Your task to perform on an android device: Show me popular games on the Play Store Image 0: 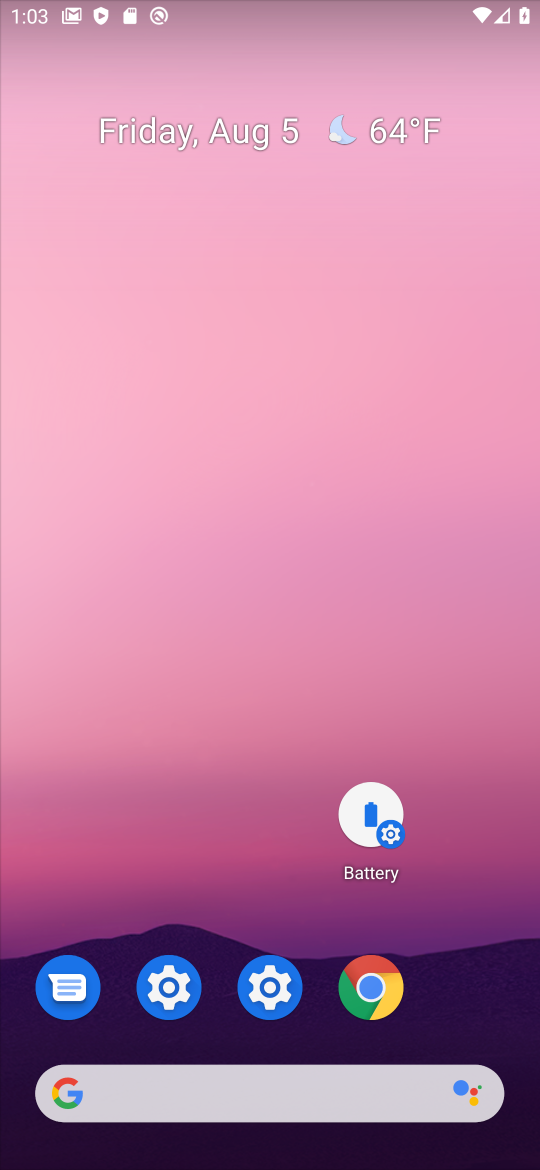
Step 0: press back button
Your task to perform on an android device: Show me popular games on the Play Store Image 1: 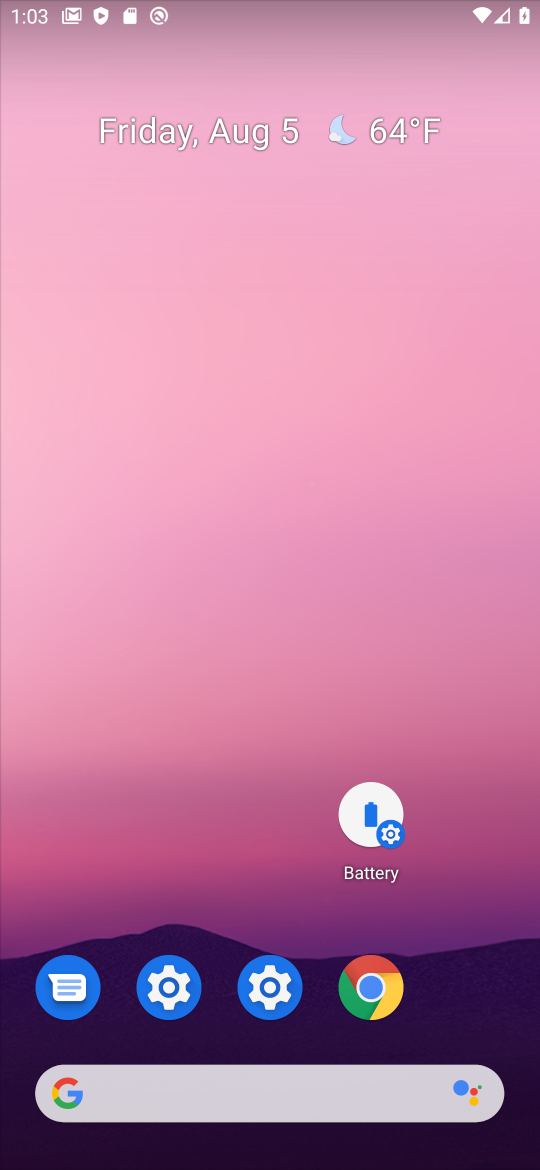
Step 1: drag from (318, 862) to (308, 529)
Your task to perform on an android device: Show me popular games on the Play Store Image 2: 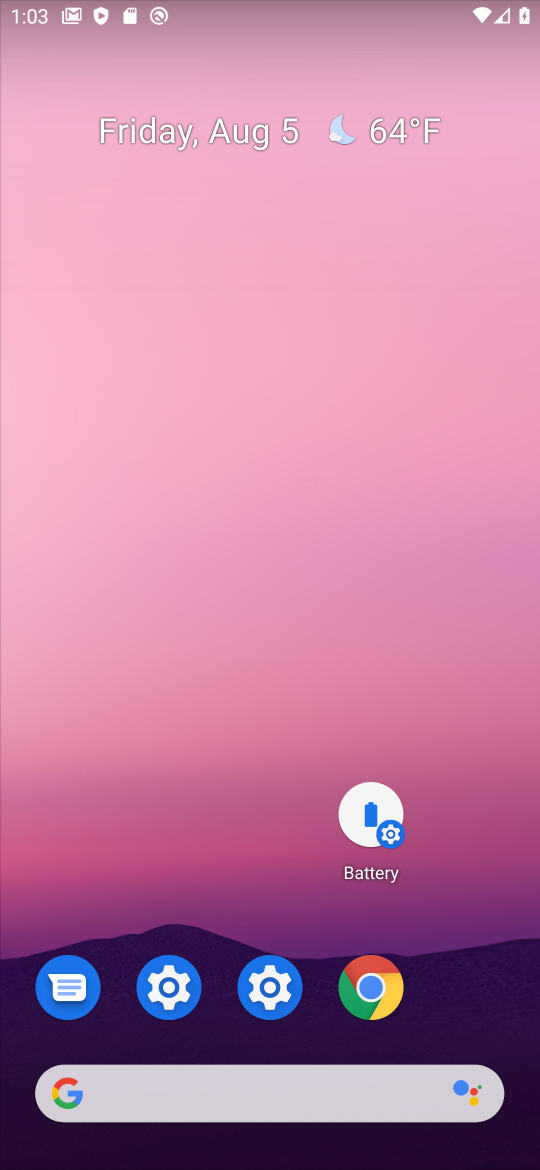
Step 2: click (412, 819)
Your task to perform on an android device: Show me popular games on the Play Store Image 3: 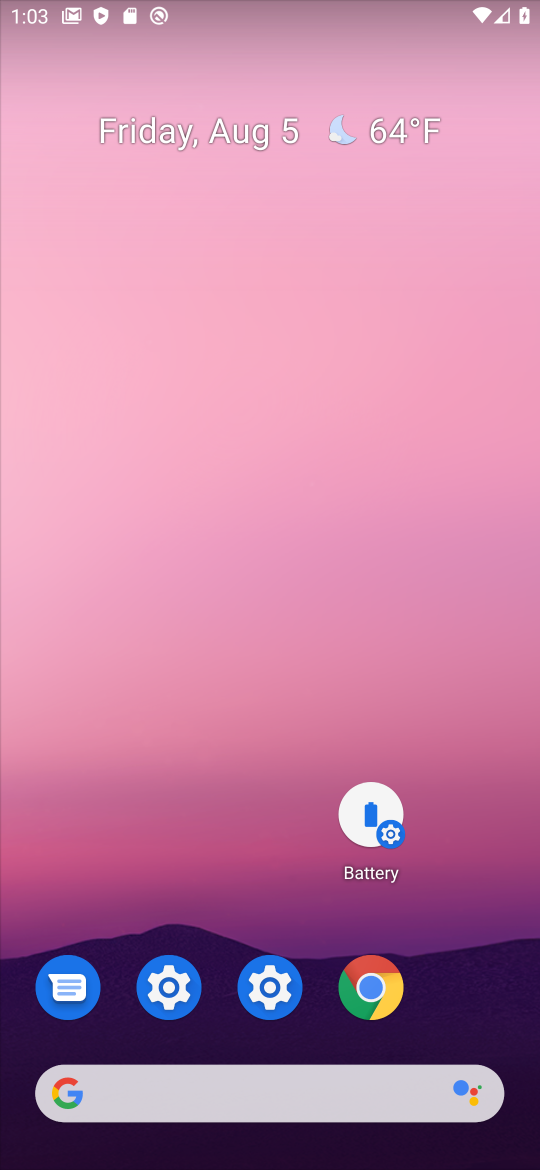
Step 3: click (281, 830)
Your task to perform on an android device: Show me popular games on the Play Store Image 4: 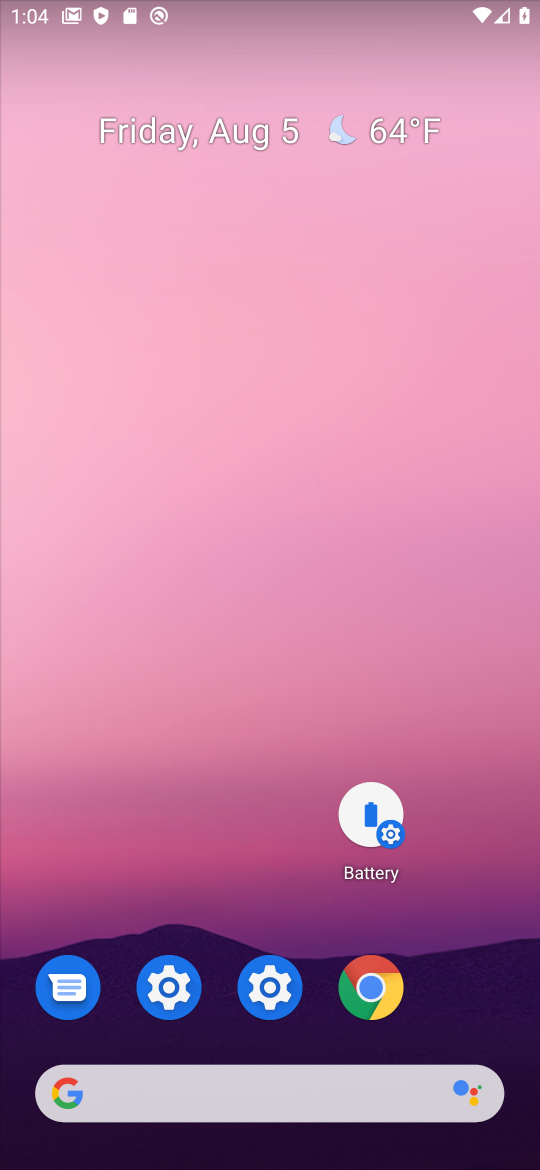
Step 4: drag from (237, 909) to (130, 206)
Your task to perform on an android device: Show me popular games on the Play Store Image 5: 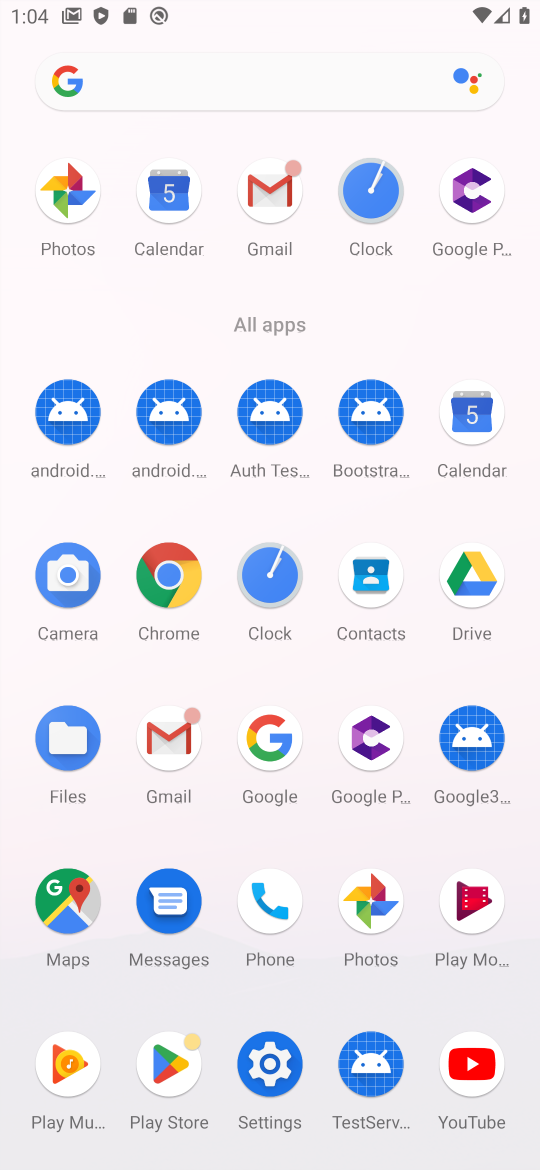
Step 5: click (171, 1079)
Your task to perform on an android device: Show me popular games on the Play Store Image 6: 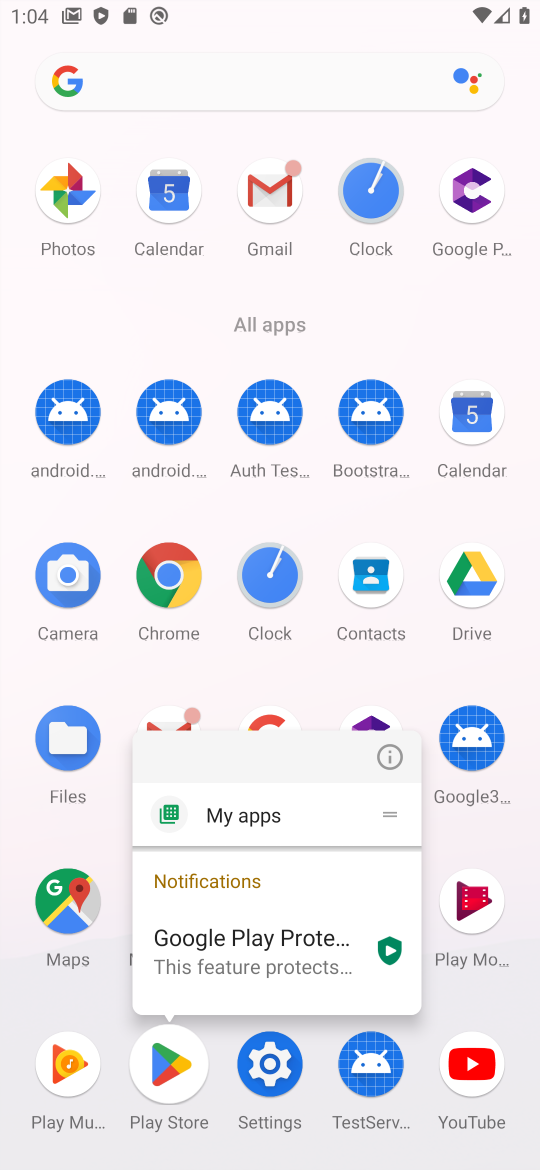
Step 6: click (171, 1079)
Your task to perform on an android device: Show me popular games on the Play Store Image 7: 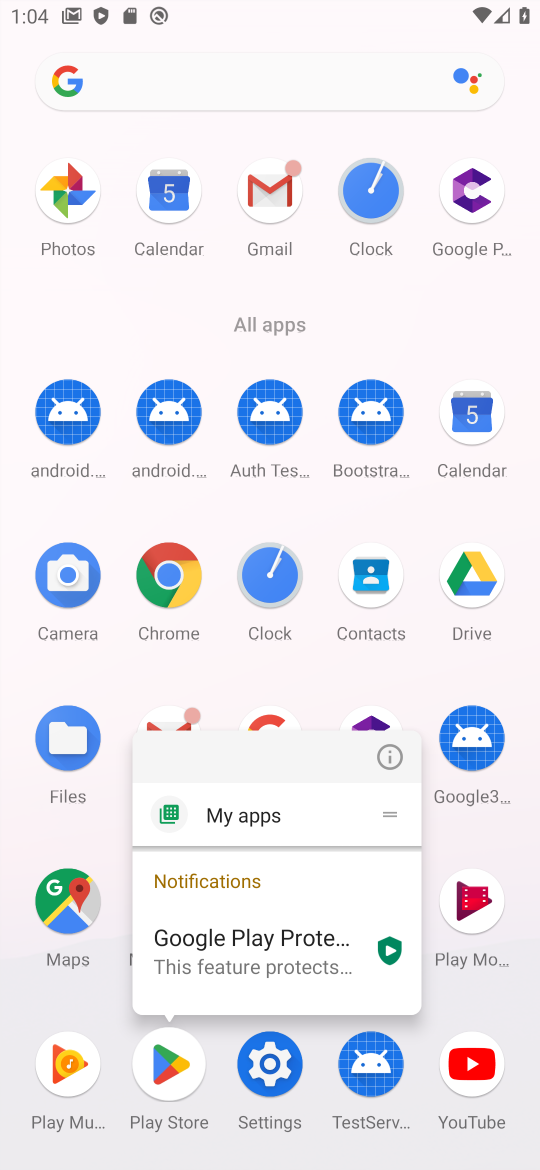
Step 7: click (171, 1079)
Your task to perform on an android device: Show me popular games on the Play Store Image 8: 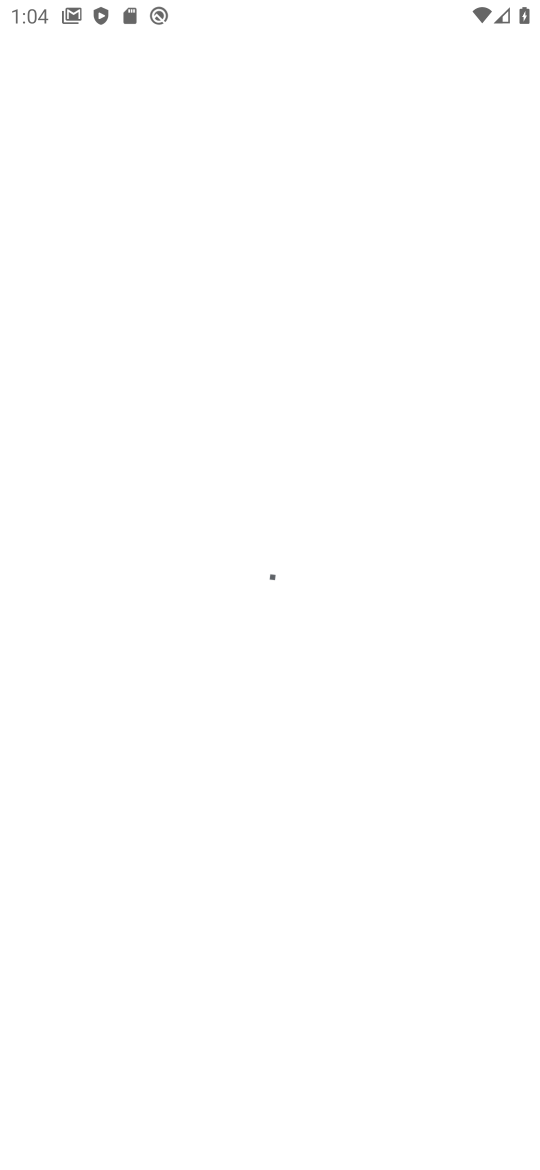
Step 8: click (170, 1081)
Your task to perform on an android device: Show me popular games on the Play Store Image 9: 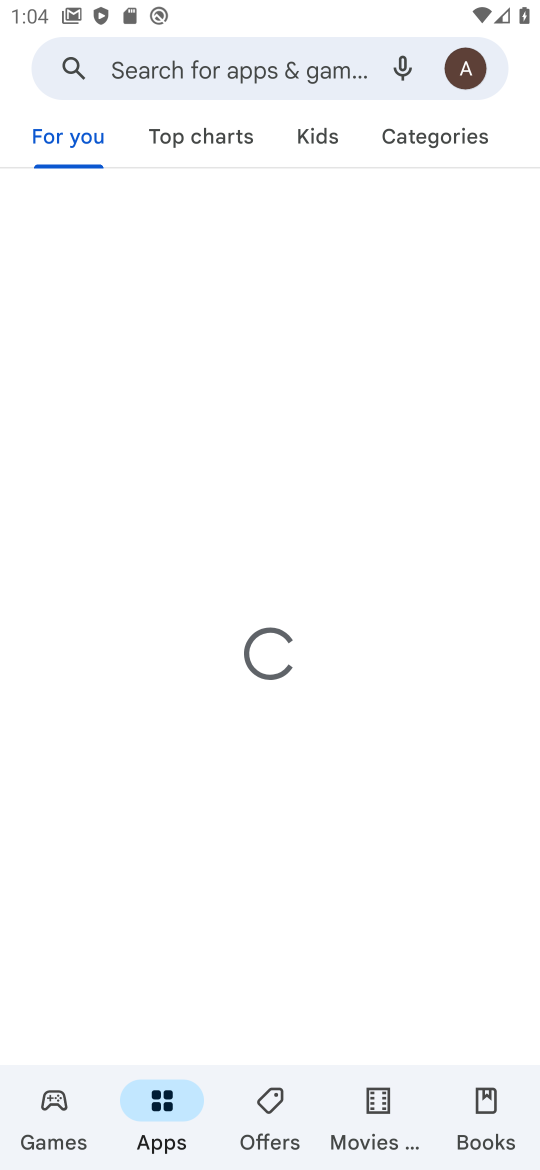
Step 9: click (124, 75)
Your task to perform on an android device: Show me popular games on the Play Store Image 10: 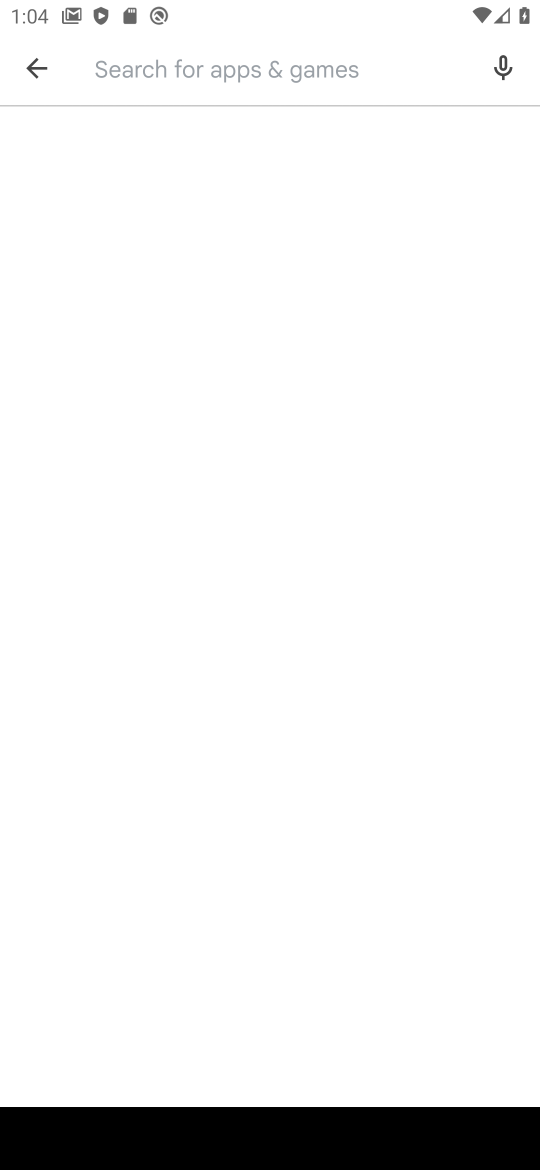
Step 10: type "popular games"
Your task to perform on an android device: Show me popular games on the Play Store Image 11: 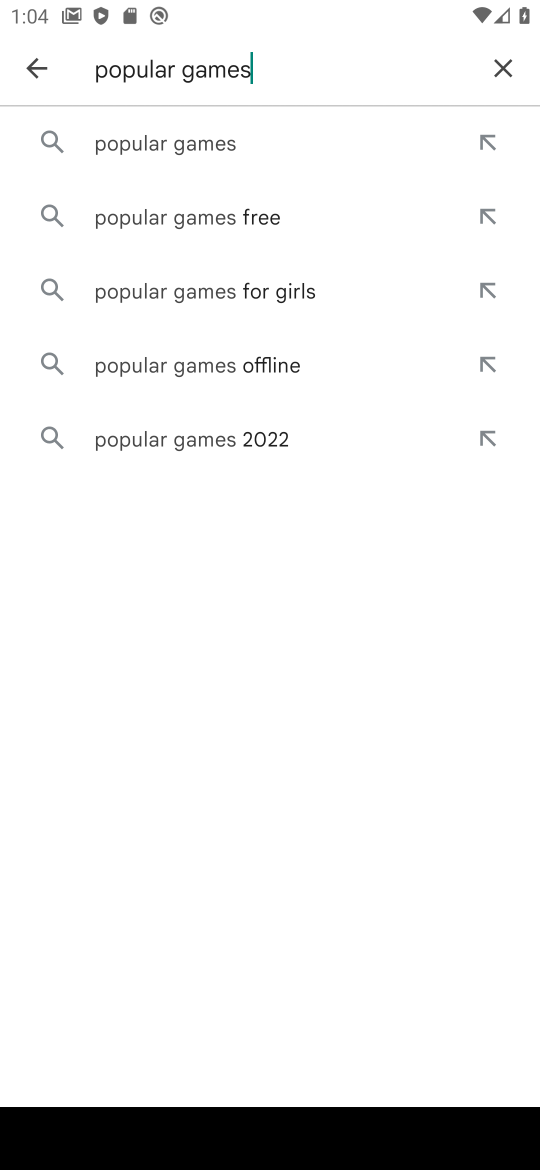
Step 11: click (149, 133)
Your task to perform on an android device: Show me popular games on the Play Store Image 12: 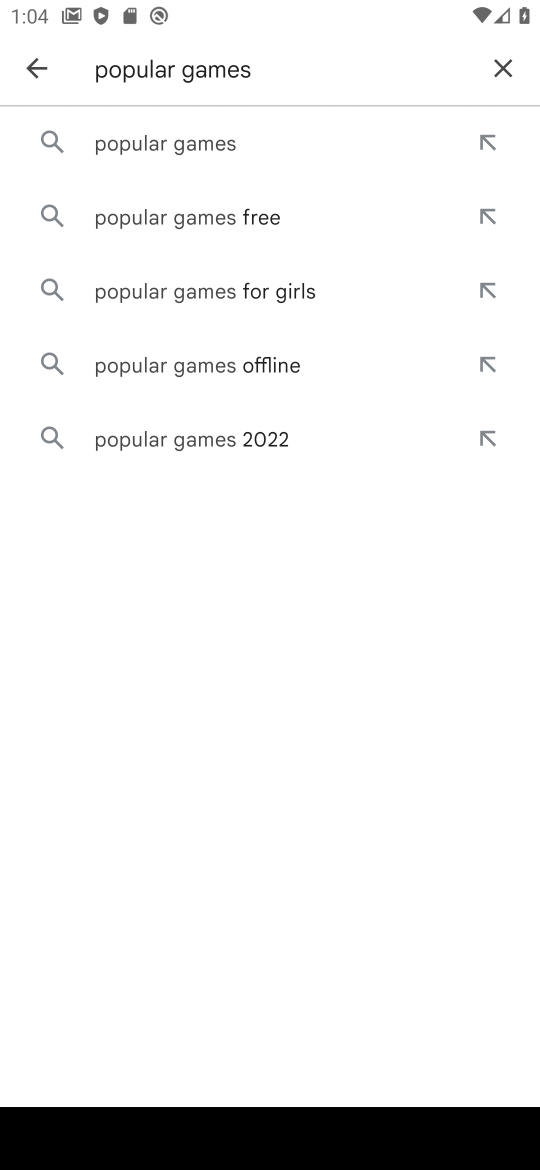
Step 12: click (149, 133)
Your task to perform on an android device: Show me popular games on the Play Store Image 13: 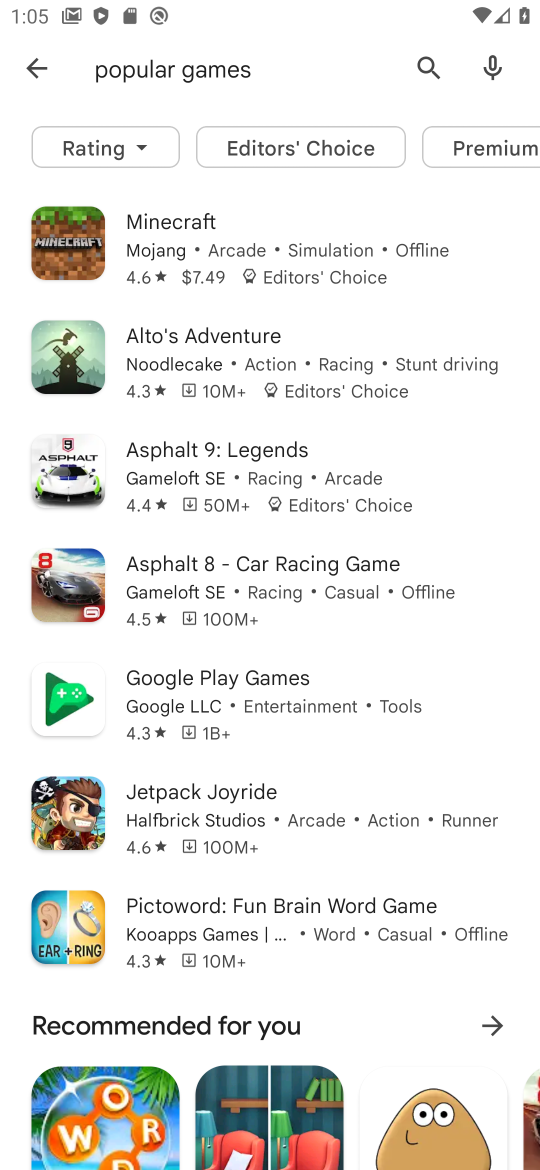
Step 13: drag from (128, 855) to (223, 318)
Your task to perform on an android device: Show me popular games on the Play Store Image 14: 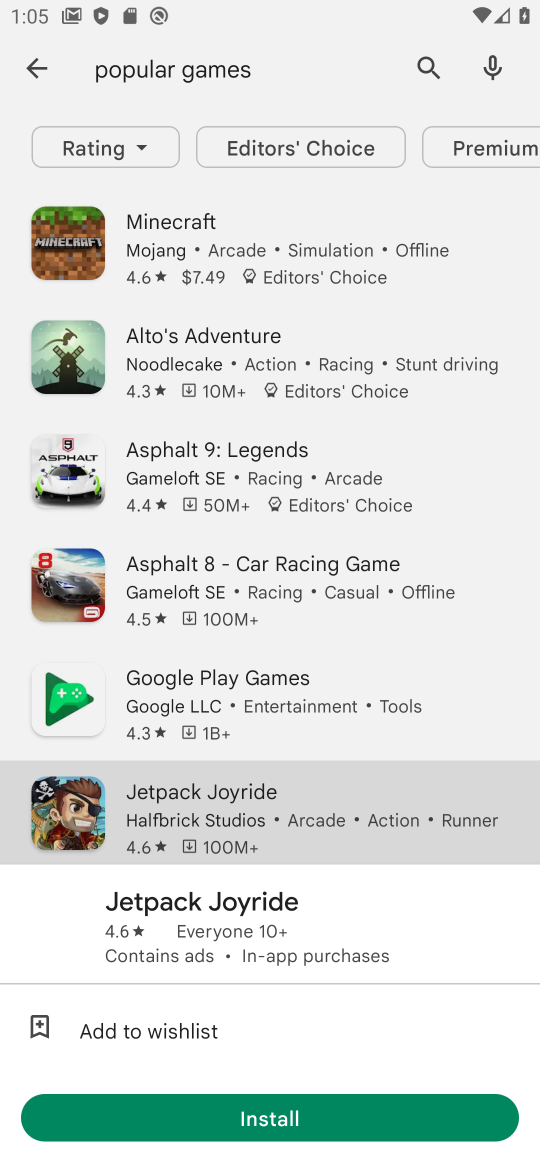
Step 14: drag from (242, 815) to (185, 299)
Your task to perform on an android device: Show me popular games on the Play Store Image 15: 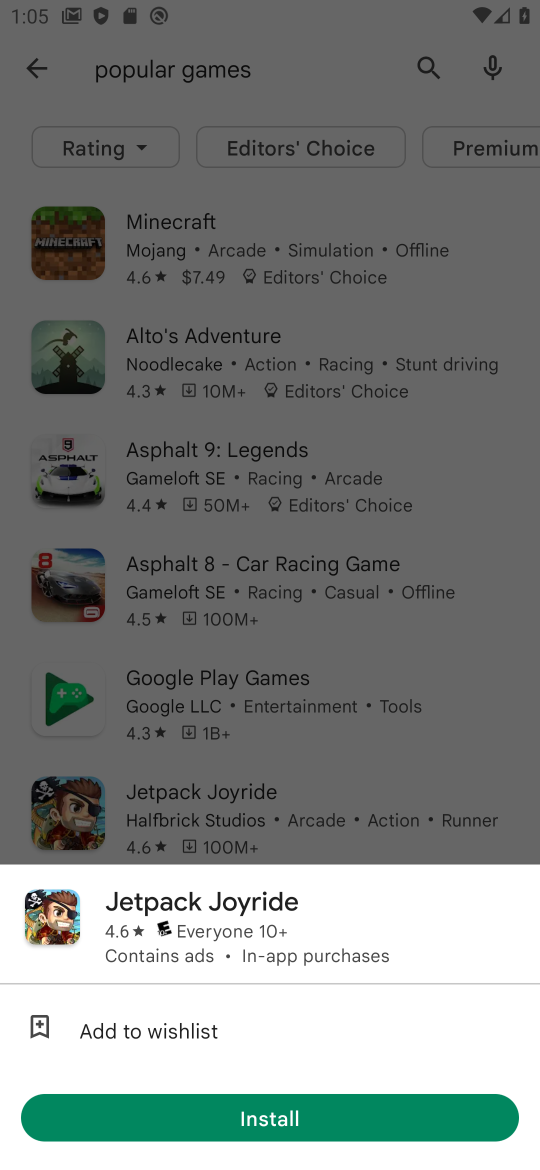
Step 15: drag from (184, 822) to (184, 375)
Your task to perform on an android device: Show me popular games on the Play Store Image 16: 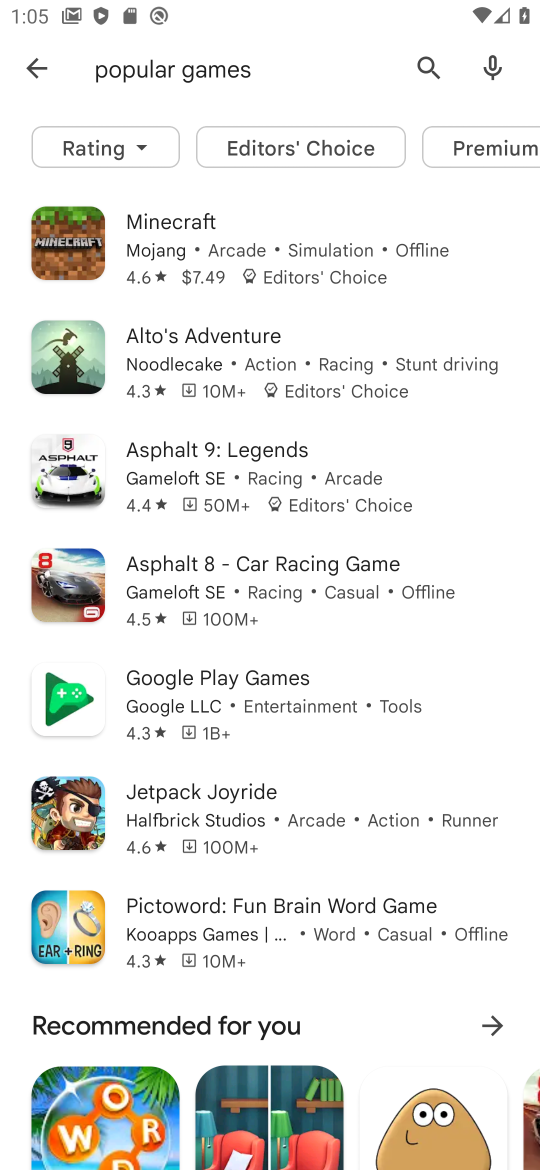
Step 16: drag from (384, 589) to (397, 473)
Your task to perform on an android device: Show me popular games on the Play Store Image 17: 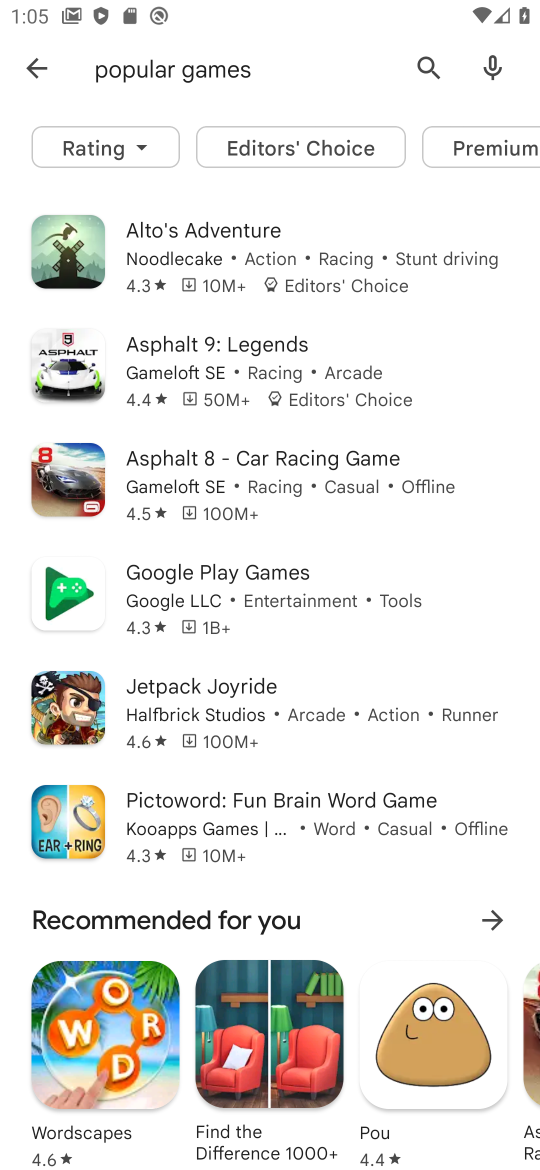
Step 17: click (444, 705)
Your task to perform on an android device: Show me popular games on the Play Store Image 18: 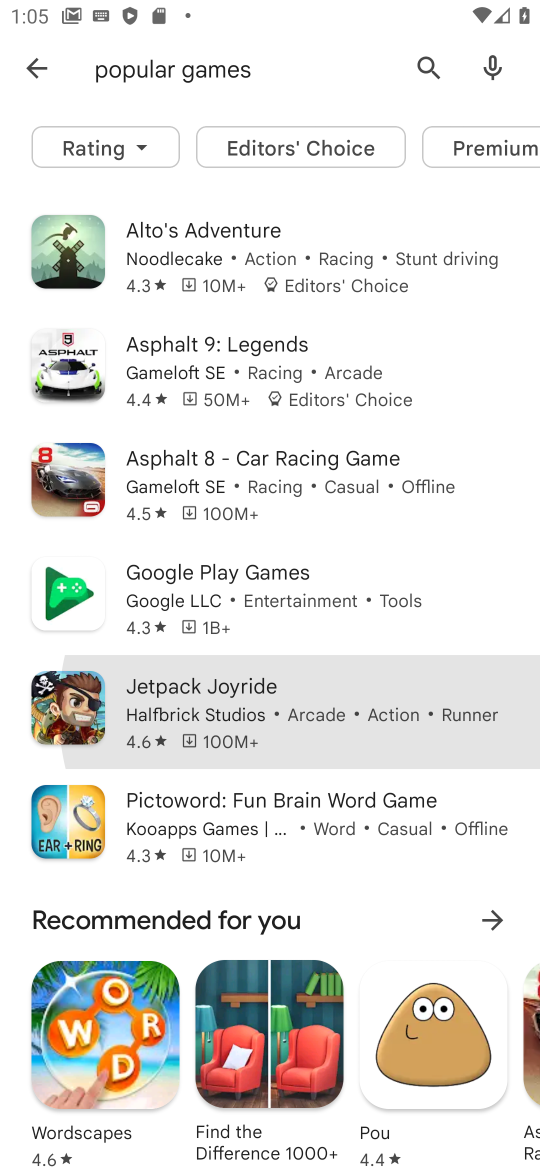
Step 18: task complete